Your task to perform on an android device: check the backup settings in the google photos Image 0: 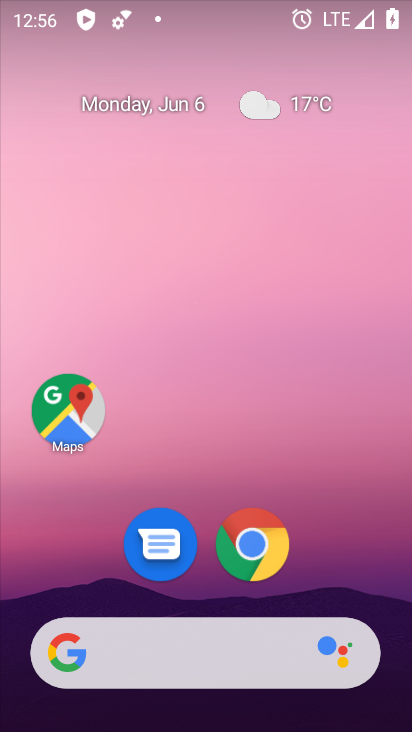
Step 0: drag from (401, 626) to (291, 180)
Your task to perform on an android device: check the backup settings in the google photos Image 1: 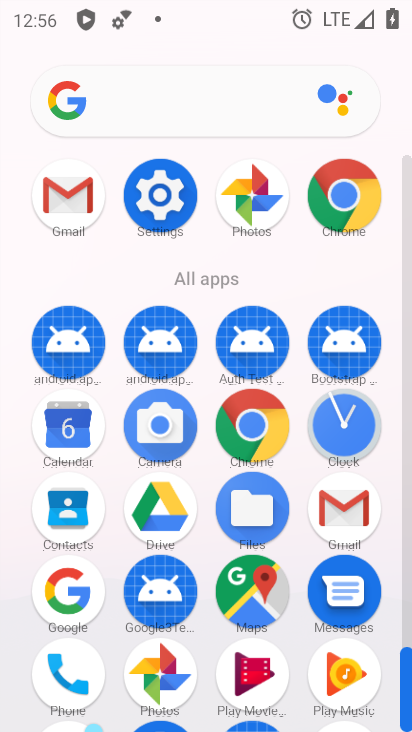
Step 1: click (261, 210)
Your task to perform on an android device: check the backup settings in the google photos Image 2: 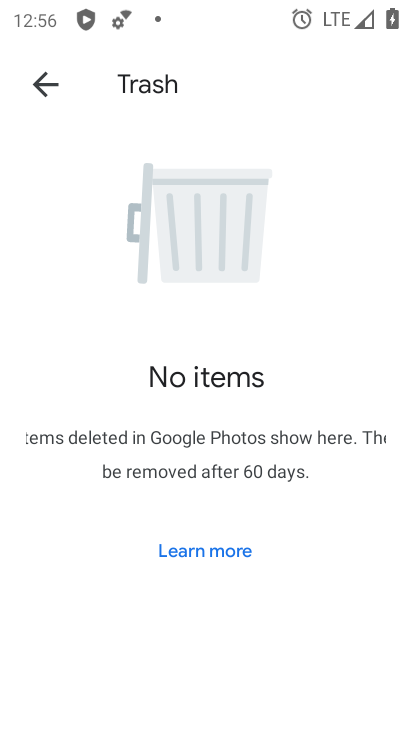
Step 2: click (39, 86)
Your task to perform on an android device: check the backup settings in the google photos Image 3: 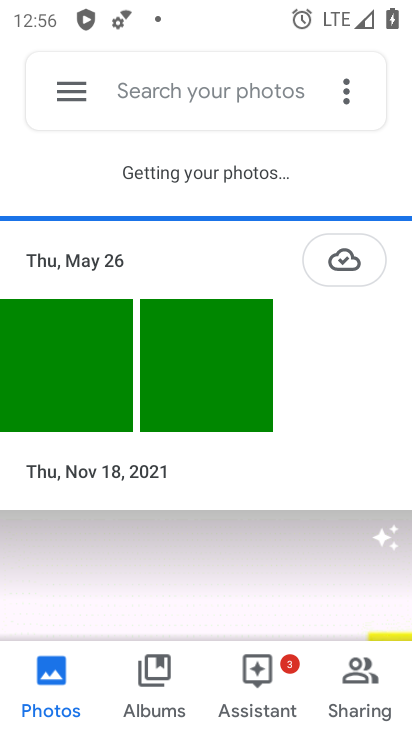
Step 3: click (74, 92)
Your task to perform on an android device: check the backup settings in the google photos Image 4: 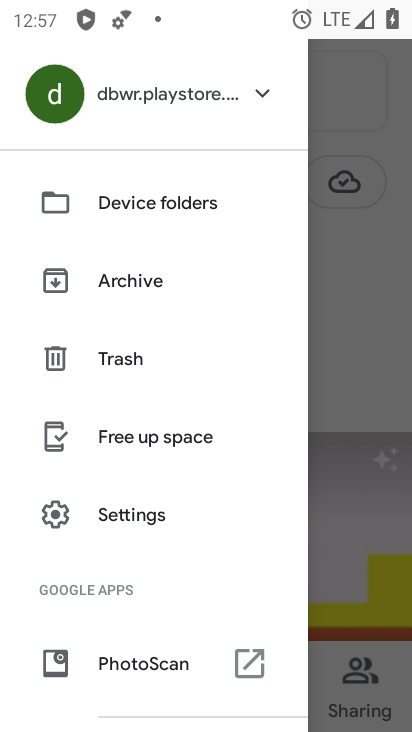
Step 4: click (127, 518)
Your task to perform on an android device: check the backup settings in the google photos Image 5: 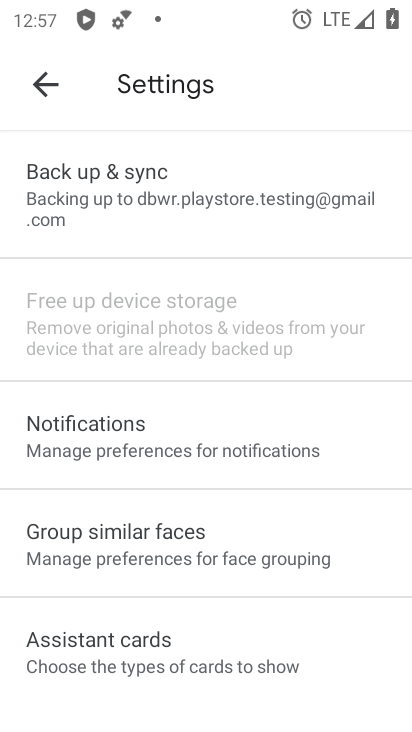
Step 5: click (264, 195)
Your task to perform on an android device: check the backup settings in the google photos Image 6: 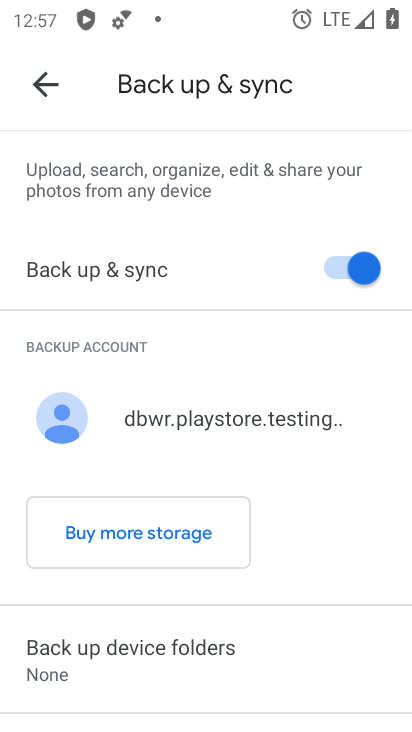
Step 6: task complete